Your task to perform on an android device: Open the Play Movies app and select the watchlist tab. Image 0: 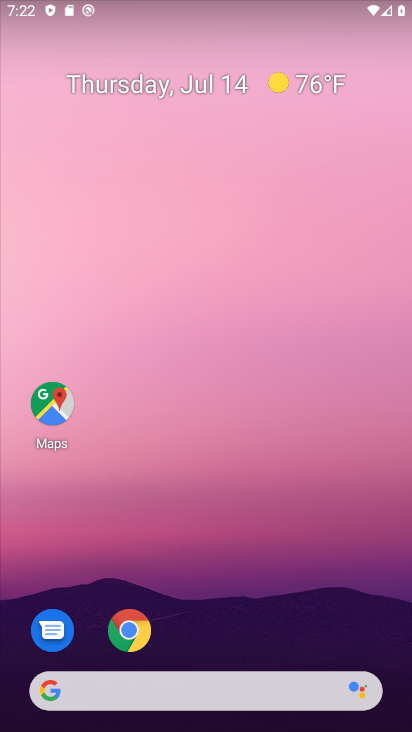
Step 0: drag from (189, 655) to (54, 281)
Your task to perform on an android device: Open the Play Movies app and select the watchlist tab. Image 1: 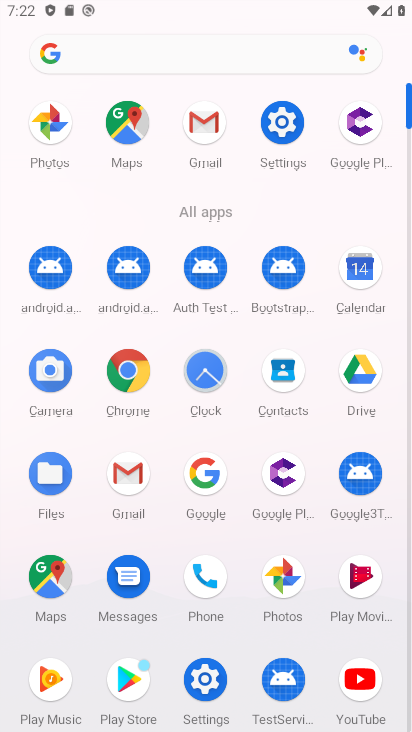
Step 1: click (351, 573)
Your task to perform on an android device: Open the Play Movies app and select the watchlist tab. Image 2: 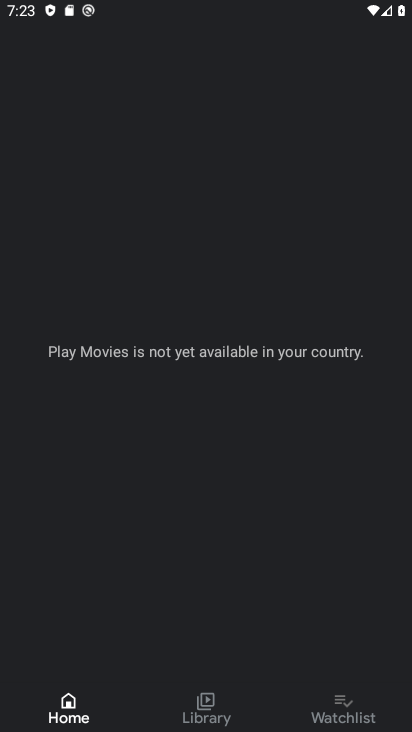
Step 2: click (340, 701)
Your task to perform on an android device: Open the Play Movies app and select the watchlist tab. Image 3: 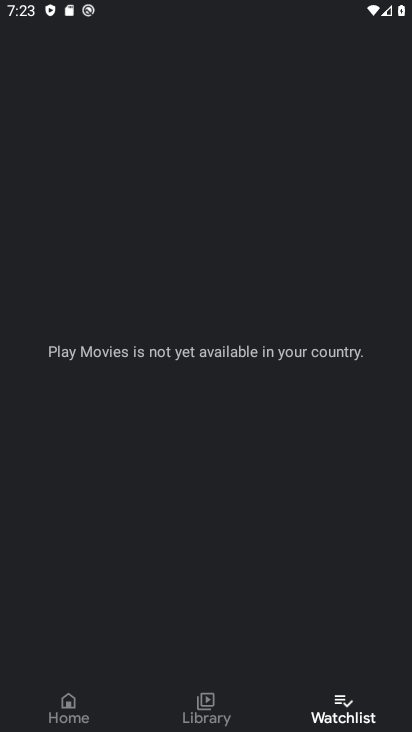
Step 3: task complete